Your task to perform on an android device: open the mobile data screen to see how much data has been used Image 0: 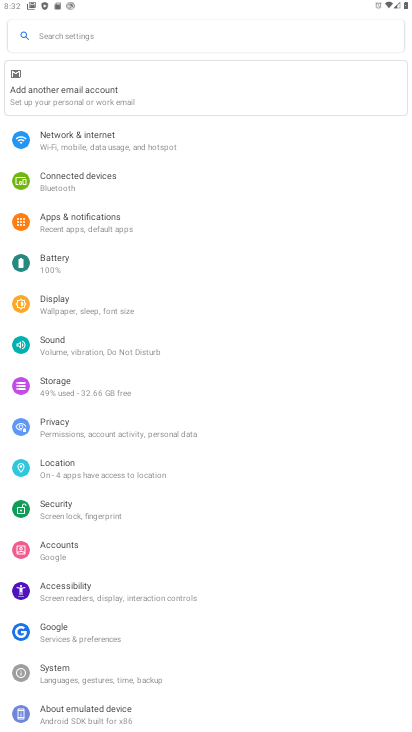
Step 0: click (77, 128)
Your task to perform on an android device: open the mobile data screen to see how much data has been used Image 1: 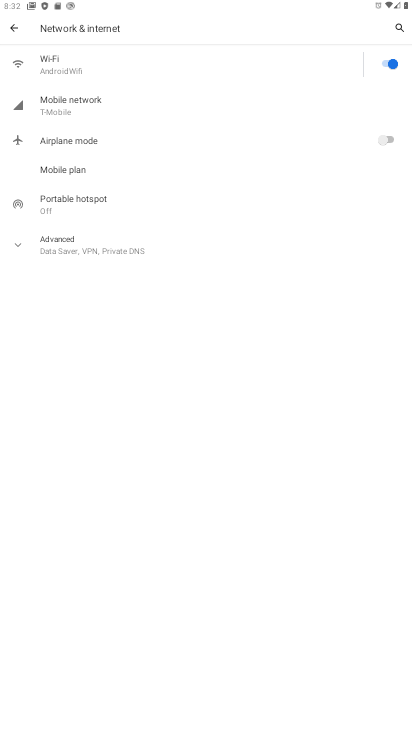
Step 1: click (85, 102)
Your task to perform on an android device: open the mobile data screen to see how much data has been used Image 2: 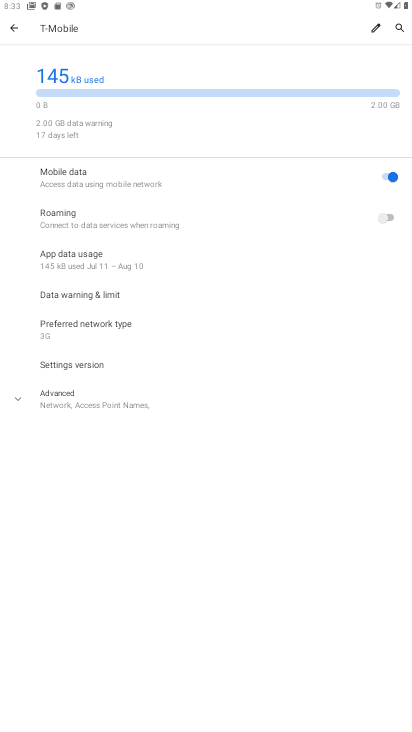
Step 2: task complete